Your task to perform on an android device: manage bookmarks in the chrome app Image 0: 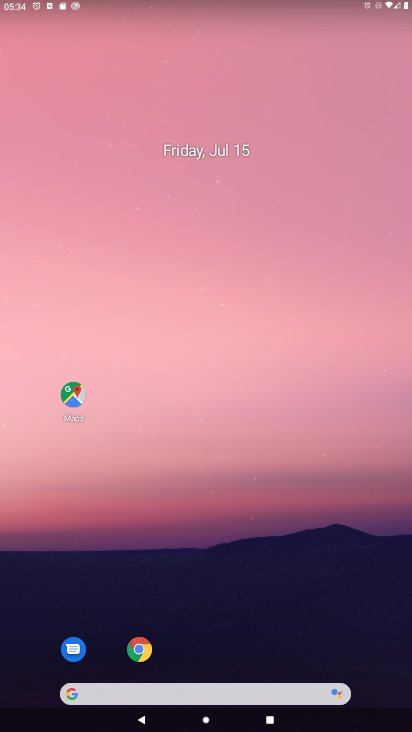
Step 0: click (141, 650)
Your task to perform on an android device: manage bookmarks in the chrome app Image 1: 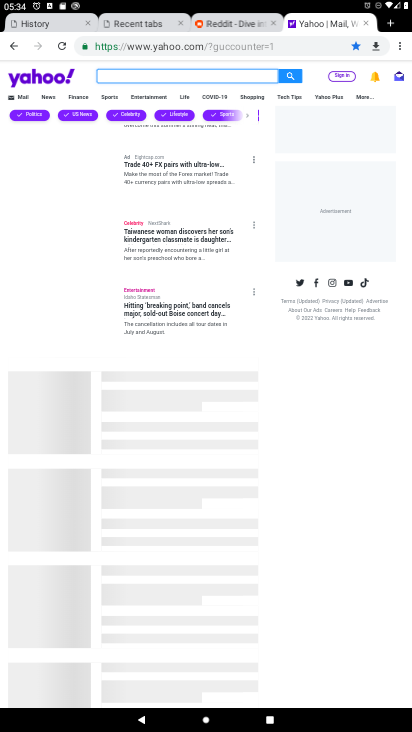
Step 1: click (398, 49)
Your task to perform on an android device: manage bookmarks in the chrome app Image 2: 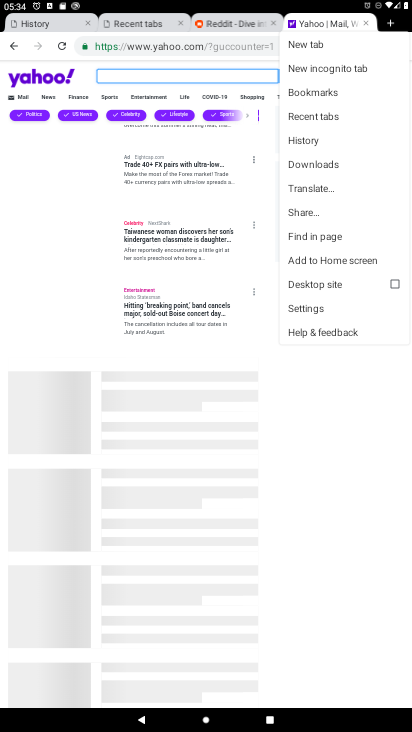
Step 2: click (305, 94)
Your task to perform on an android device: manage bookmarks in the chrome app Image 3: 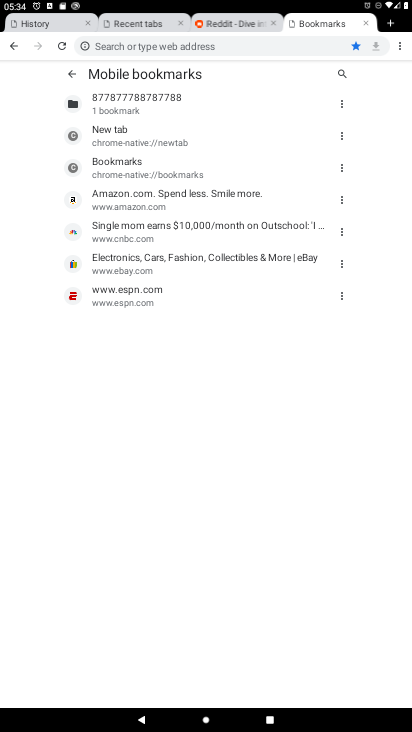
Step 3: click (116, 194)
Your task to perform on an android device: manage bookmarks in the chrome app Image 4: 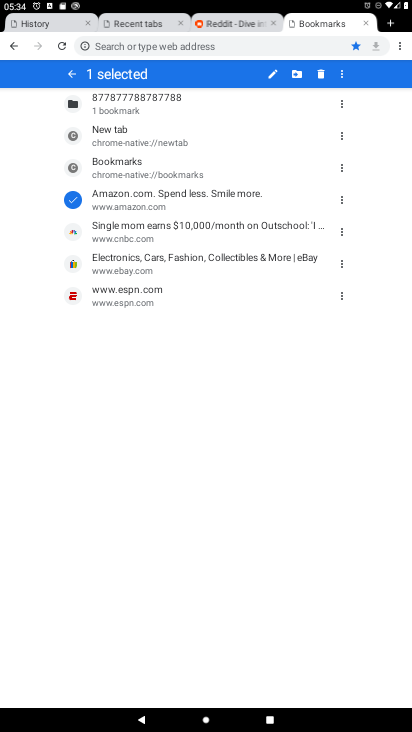
Step 4: click (295, 77)
Your task to perform on an android device: manage bookmarks in the chrome app Image 5: 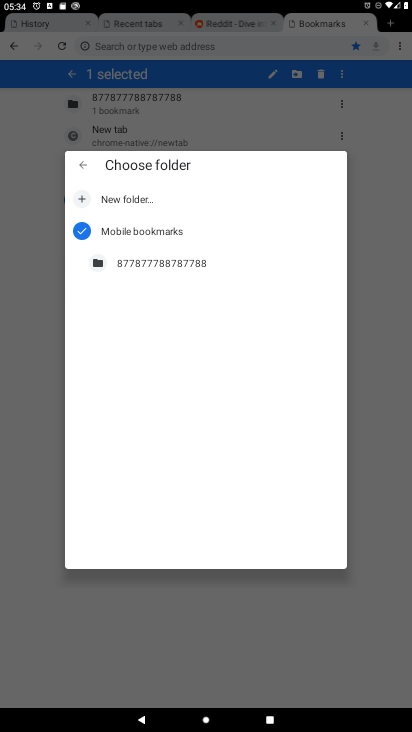
Step 5: click (81, 200)
Your task to perform on an android device: manage bookmarks in the chrome app Image 6: 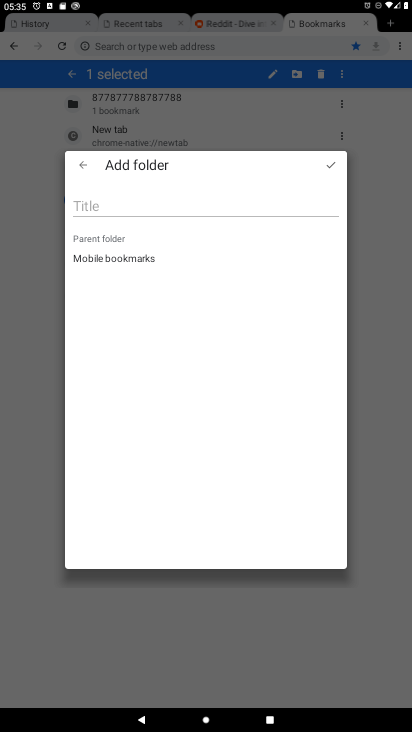
Step 6: click (100, 202)
Your task to perform on an android device: manage bookmarks in the chrome app Image 7: 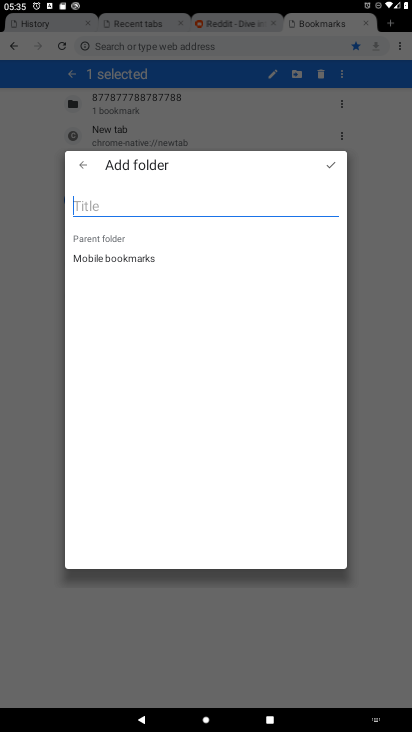
Step 7: type "tvf"
Your task to perform on an android device: manage bookmarks in the chrome app Image 8: 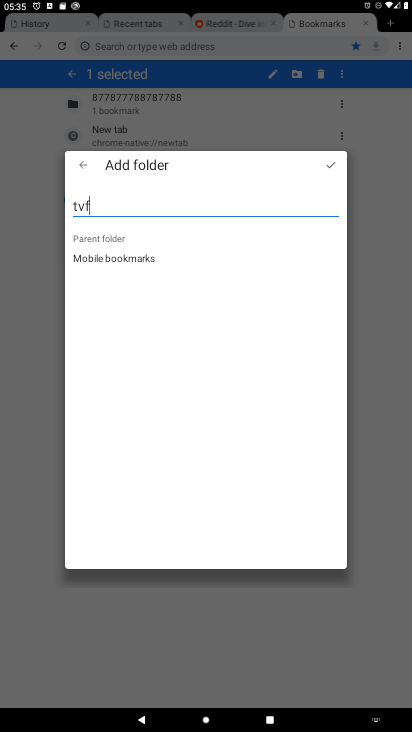
Step 8: click (330, 166)
Your task to perform on an android device: manage bookmarks in the chrome app Image 9: 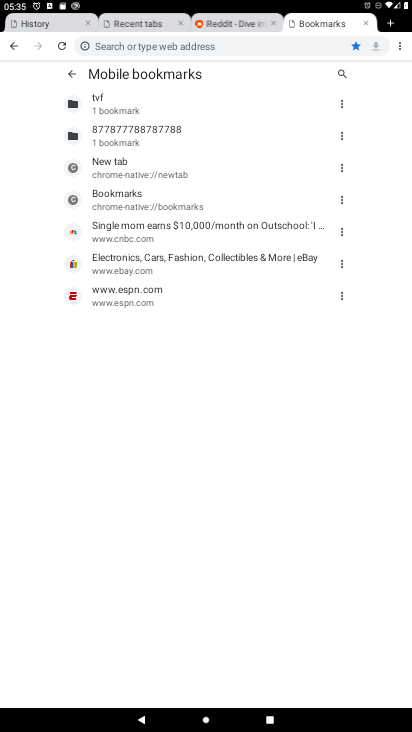
Step 9: task complete